Your task to perform on an android device: turn on the 12-hour format for clock Image 0: 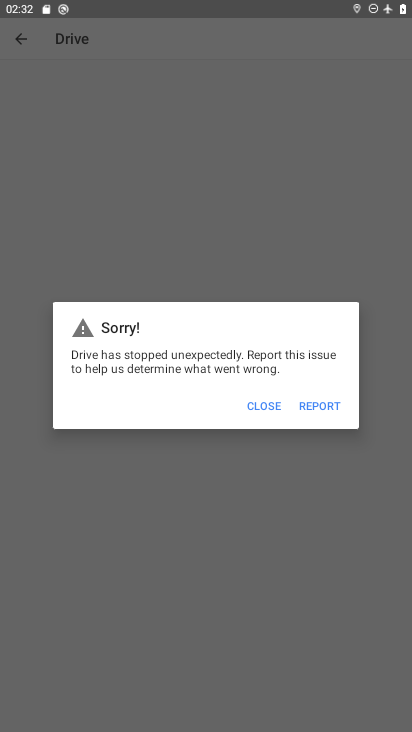
Step 0: press home button
Your task to perform on an android device: turn on the 12-hour format for clock Image 1: 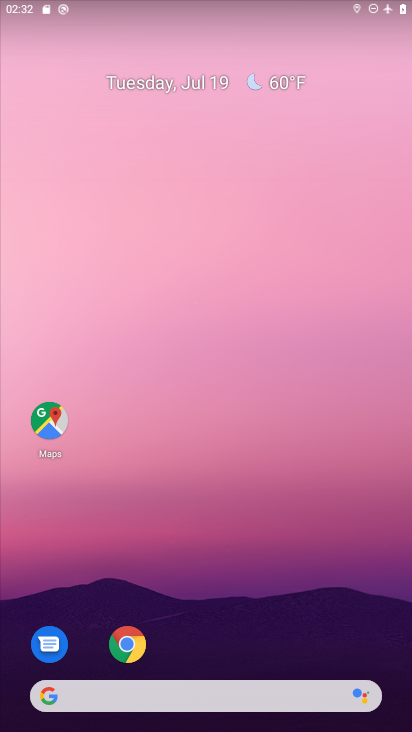
Step 1: drag from (204, 663) to (256, 131)
Your task to perform on an android device: turn on the 12-hour format for clock Image 2: 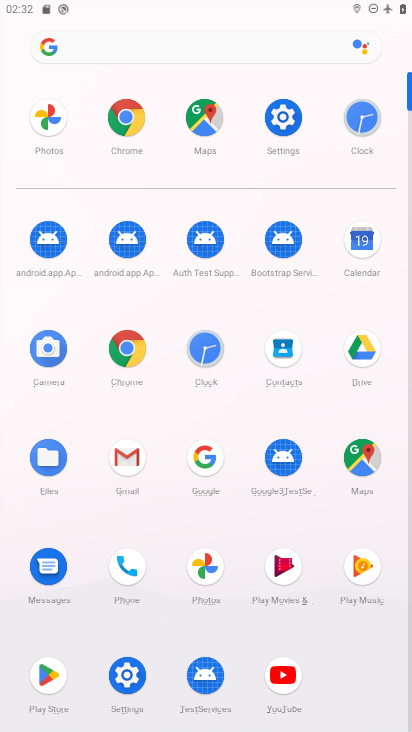
Step 2: click (199, 353)
Your task to perform on an android device: turn on the 12-hour format for clock Image 3: 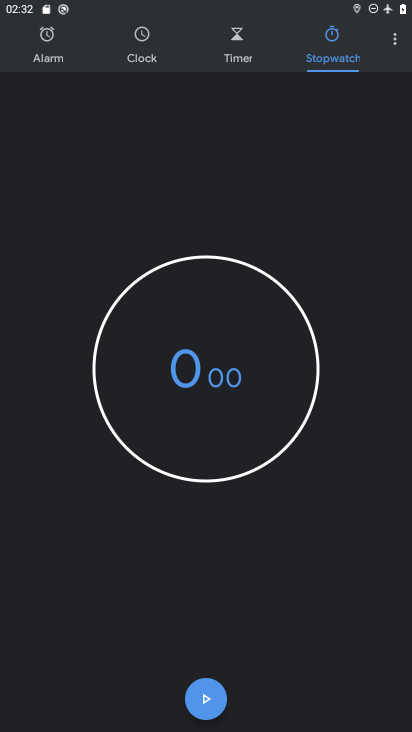
Step 3: click (398, 40)
Your task to perform on an android device: turn on the 12-hour format for clock Image 4: 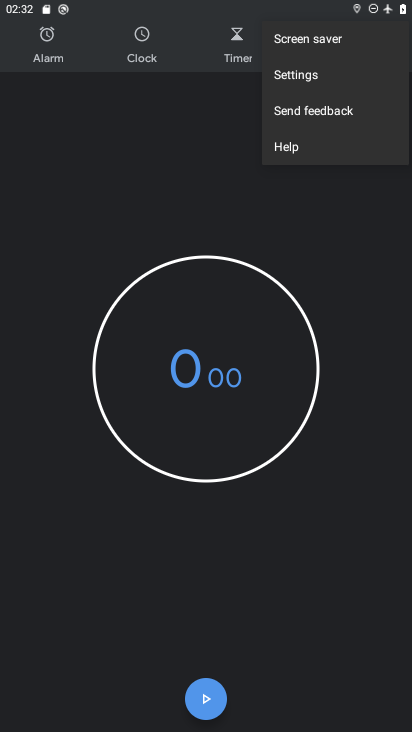
Step 4: click (299, 79)
Your task to perform on an android device: turn on the 12-hour format for clock Image 5: 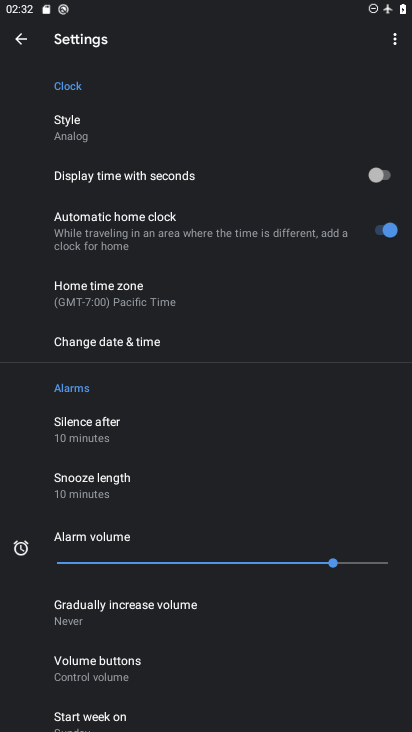
Step 5: click (85, 345)
Your task to perform on an android device: turn on the 12-hour format for clock Image 6: 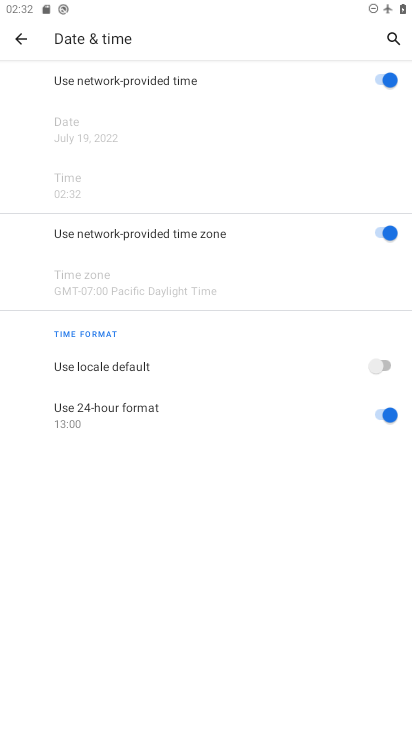
Step 6: click (379, 408)
Your task to perform on an android device: turn on the 12-hour format for clock Image 7: 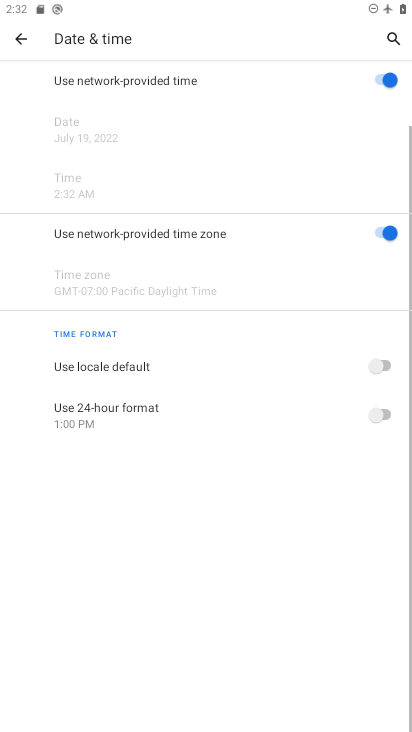
Step 7: task complete